Your task to perform on an android device: search for 2021 honda civic Image 0: 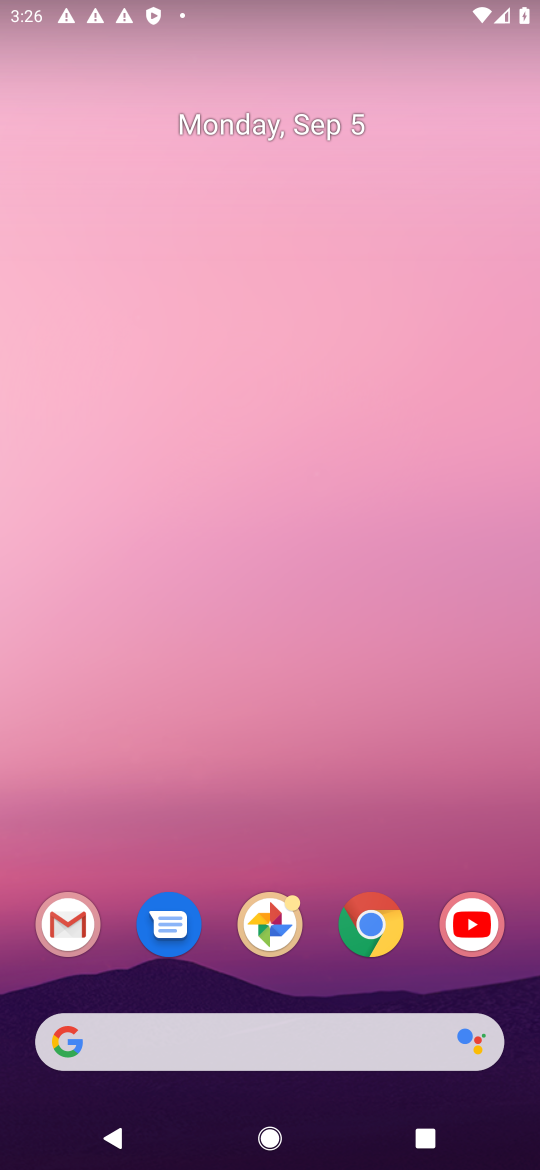
Step 0: drag from (323, 969) to (304, 368)
Your task to perform on an android device: search for 2021 honda civic Image 1: 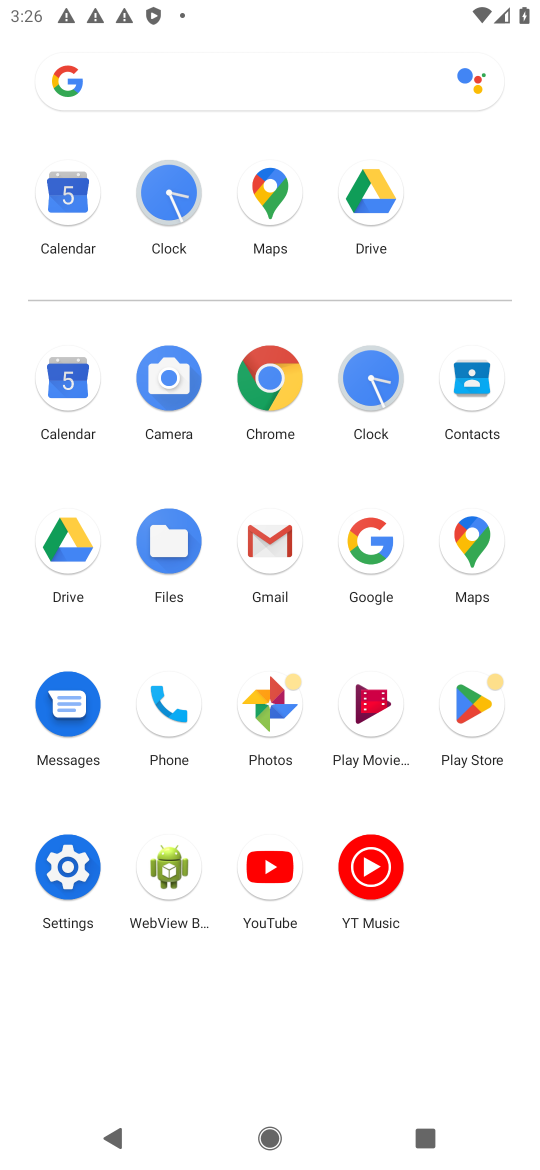
Step 1: click (278, 408)
Your task to perform on an android device: search for 2021 honda civic Image 2: 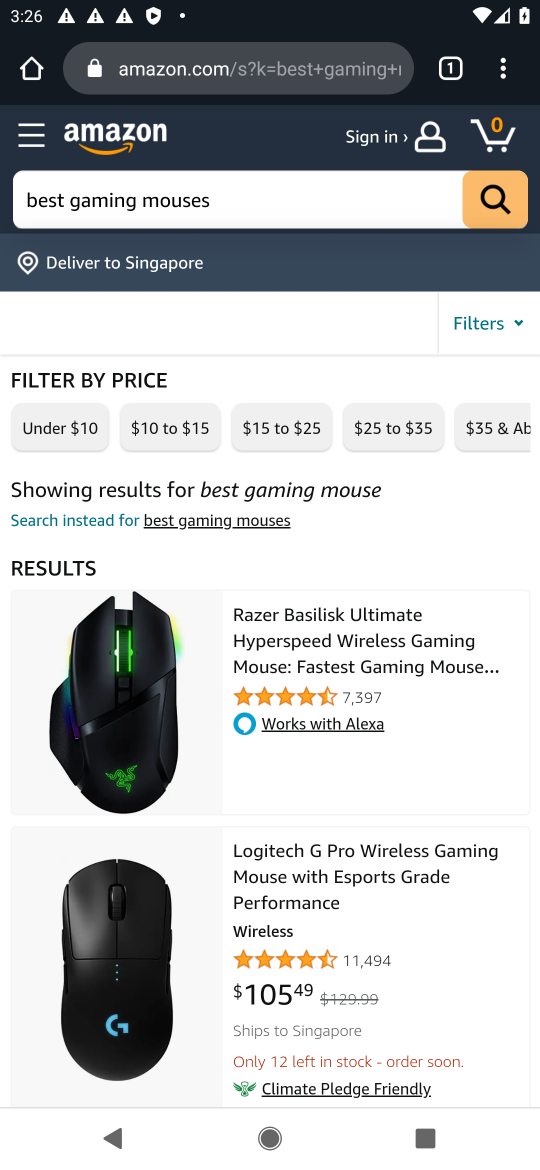
Step 2: click (331, 61)
Your task to perform on an android device: search for 2021 honda civic Image 3: 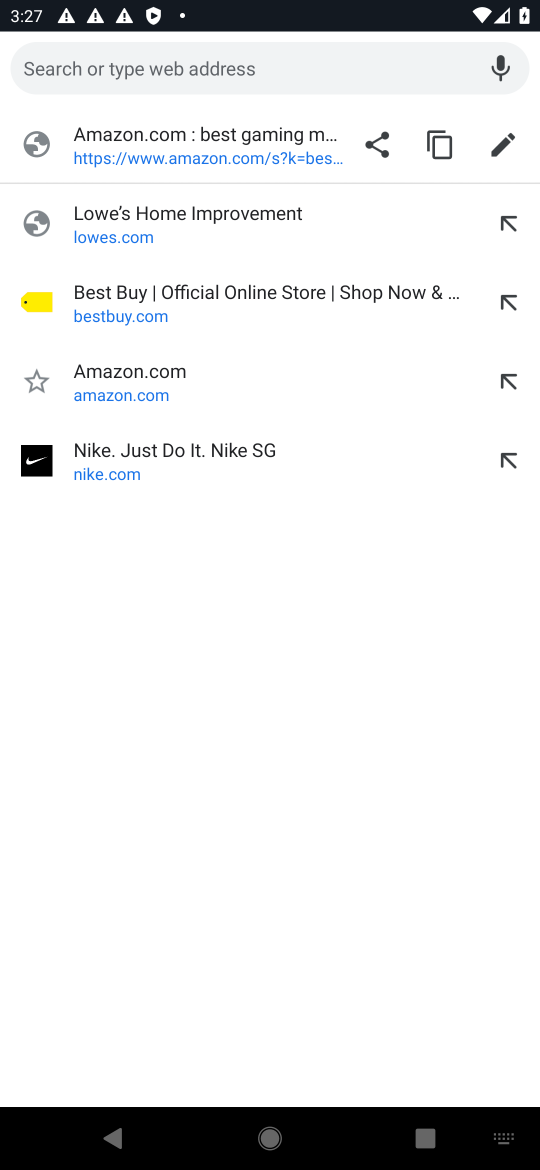
Step 3: type "2021 honda civic"
Your task to perform on an android device: search for 2021 honda civic Image 4: 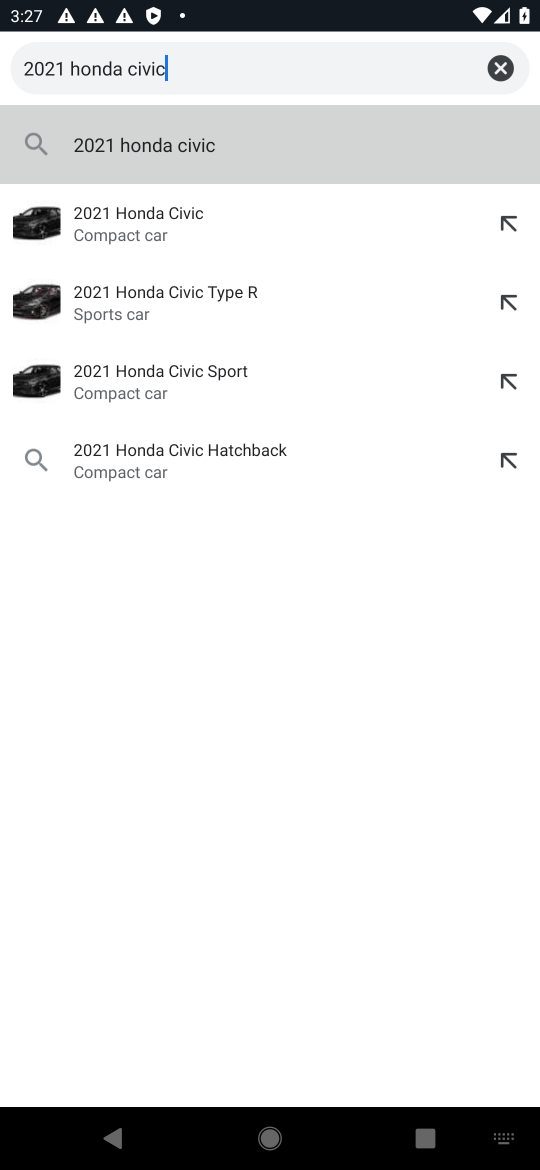
Step 4: click (249, 145)
Your task to perform on an android device: search for 2021 honda civic Image 5: 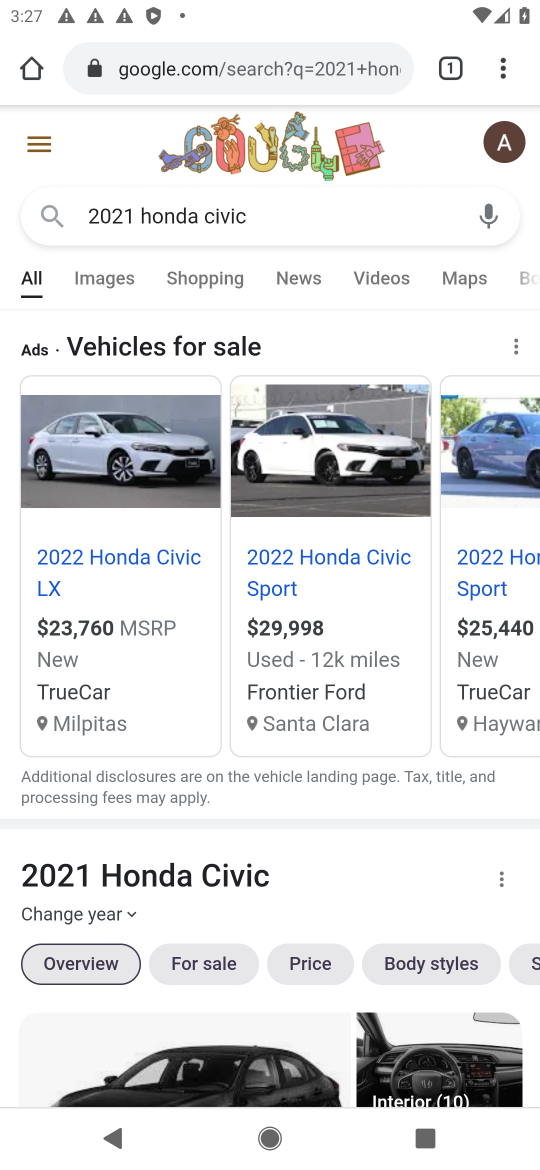
Step 5: task complete